Your task to perform on an android device: toggle javascript in the chrome app Image 0: 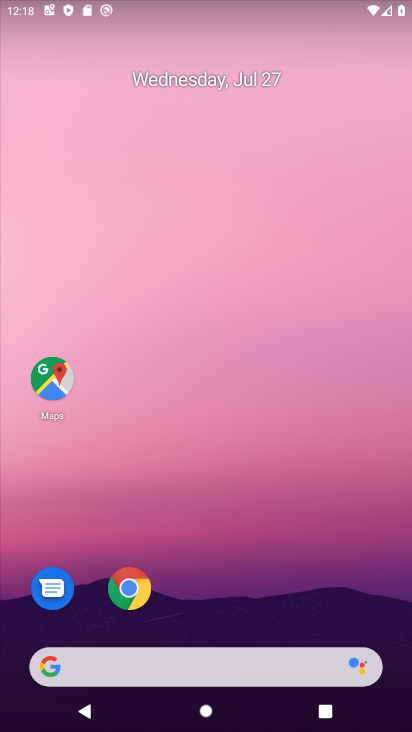
Step 0: click (144, 590)
Your task to perform on an android device: toggle javascript in the chrome app Image 1: 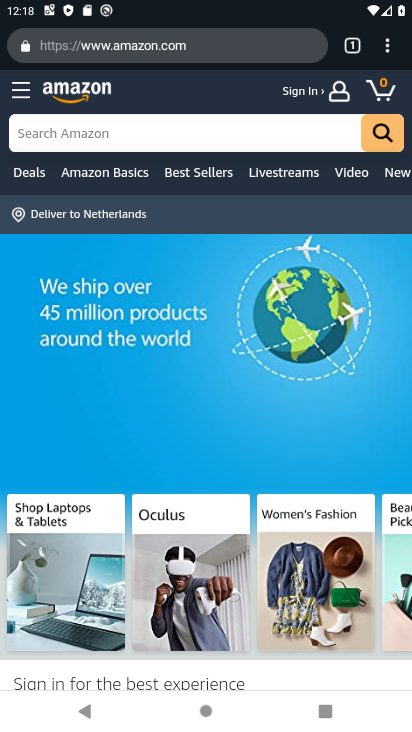
Step 1: click (388, 54)
Your task to perform on an android device: toggle javascript in the chrome app Image 2: 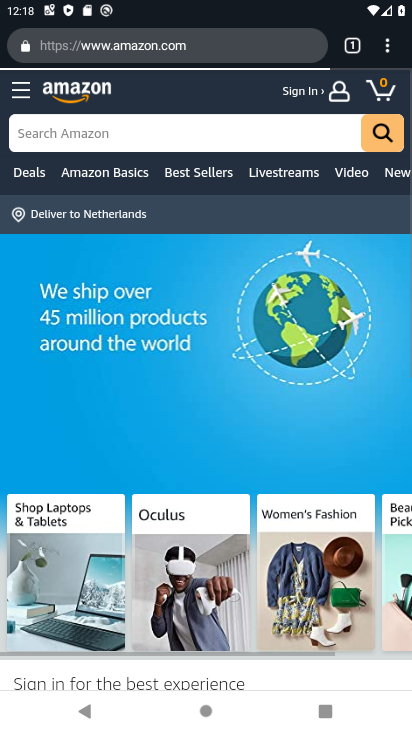
Step 2: click (389, 52)
Your task to perform on an android device: toggle javascript in the chrome app Image 3: 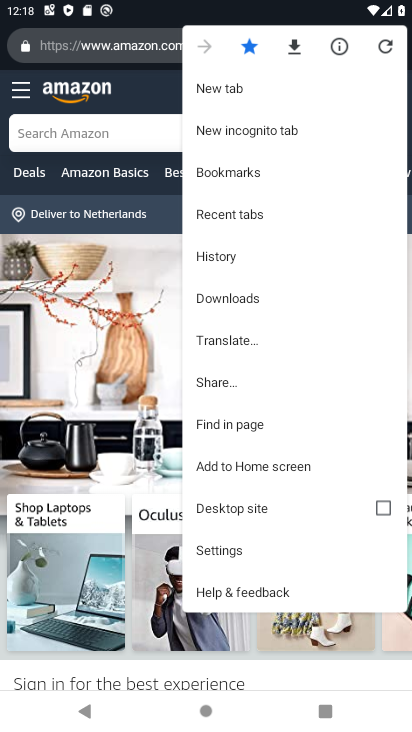
Step 3: click (236, 542)
Your task to perform on an android device: toggle javascript in the chrome app Image 4: 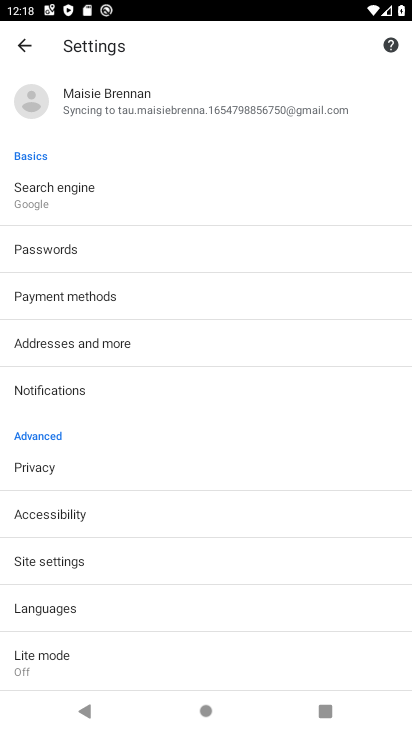
Step 4: click (57, 559)
Your task to perform on an android device: toggle javascript in the chrome app Image 5: 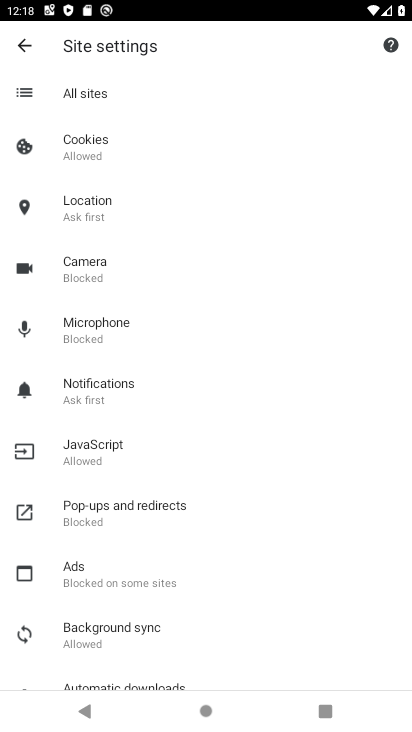
Step 5: click (95, 455)
Your task to perform on an android device: toggle javascript in the chrome app Image 6: 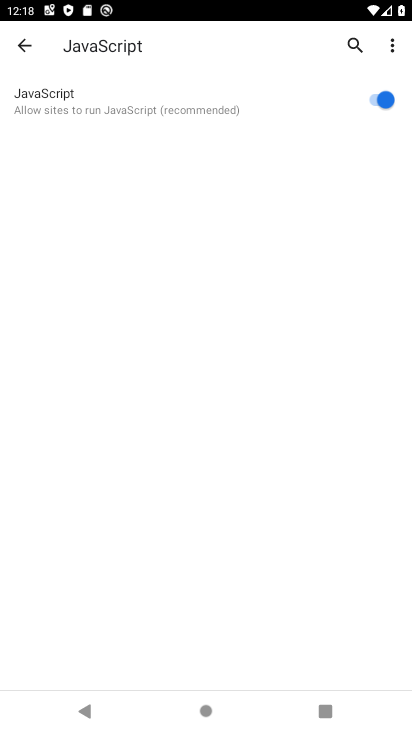
Step 6: task complete